Your task to perform on an android device: toggle location history Image 0: 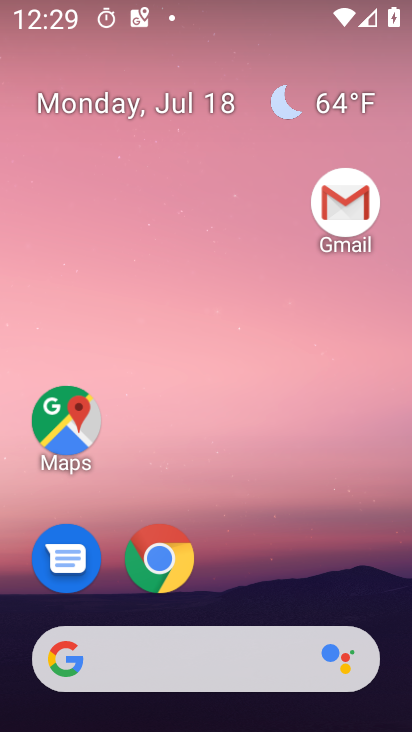
Step 0: drag from (341, 590) to (276, 0)
Your task to perform on an android device: toggle location history Image 1: 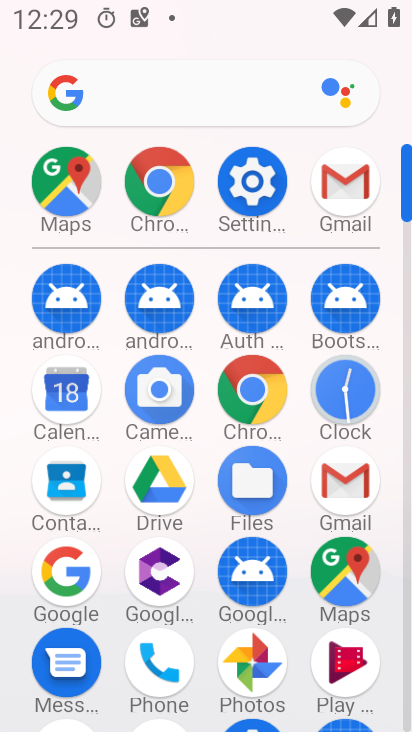
Step 1: click (246, 192)
Your task to perform on an android device: toggle location history Image 2: 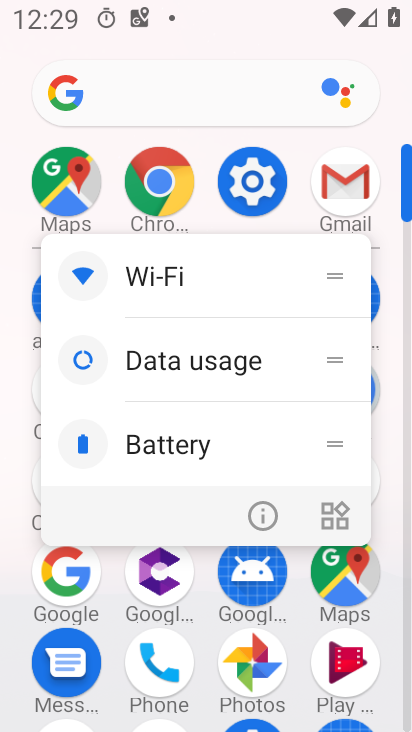
Step 2: click (258, 183)
Your task to perform on an android device: toggle location history Image 3: 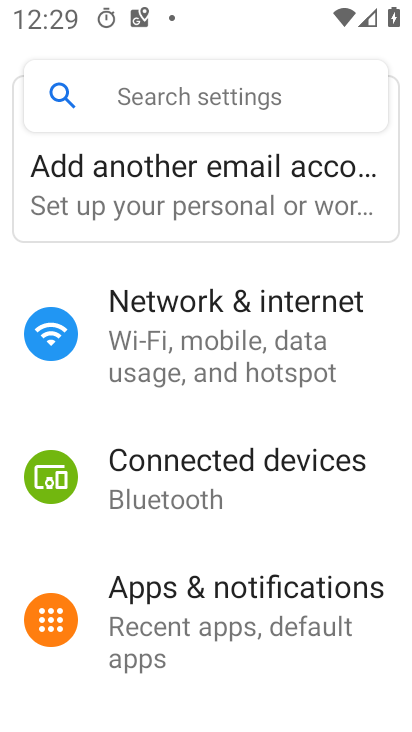
Step 3: drag from (362, 521) to (363, 426)
Your task to perform on an android device: toggle location history Image 4: 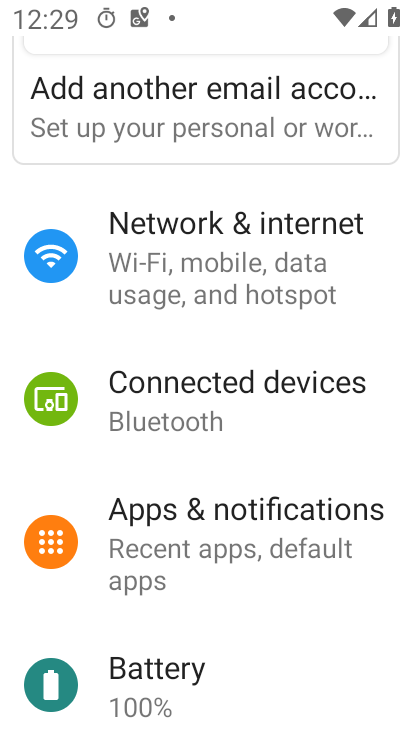
Step 4: drag from (357, 575) to (362, 472)
Your task to perform on an android device: toggle location history Image 5: 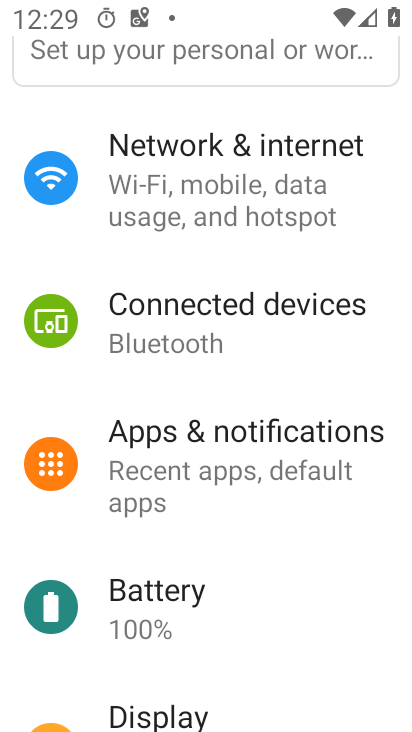
Step 5: drag from (352, 539) to (364, 434)
Your task to perform on an android device: toggle location history Image 6: 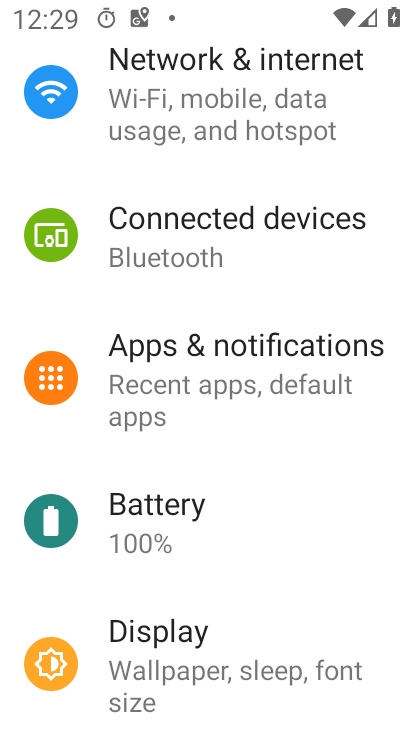
Step 6: drag from (354, 538) to (354, 406)
Your task to perform on an android device: toggle location history Image 7: 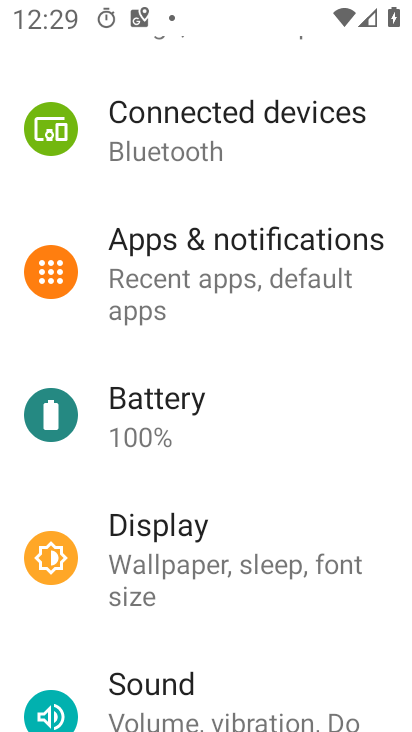
Step 7: drag from (342, 621) to (359, 494)
Your task to perform on an android device: toggle location history Image 8: 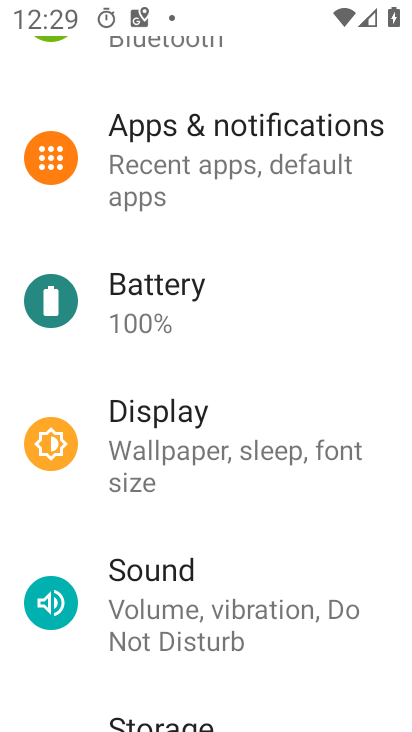
Step 8: drag from (358, 609) to (358, 487)
Your task to perform on an android device: toggle location history Image 9: 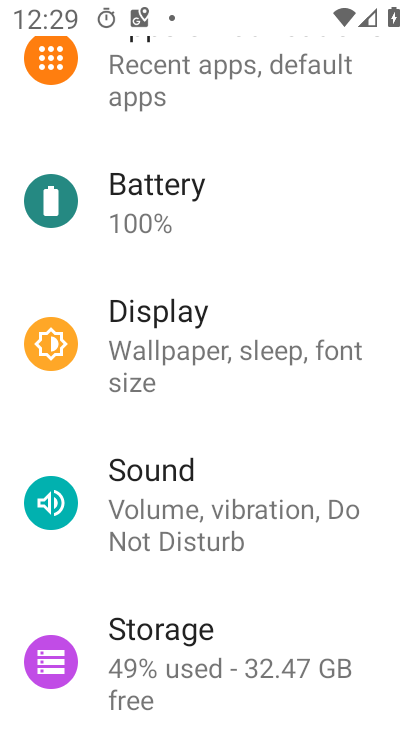
Step 9: drag from (355, 600) to (365, 466)
Your task to perform on an android device: toggle location history Image 10: 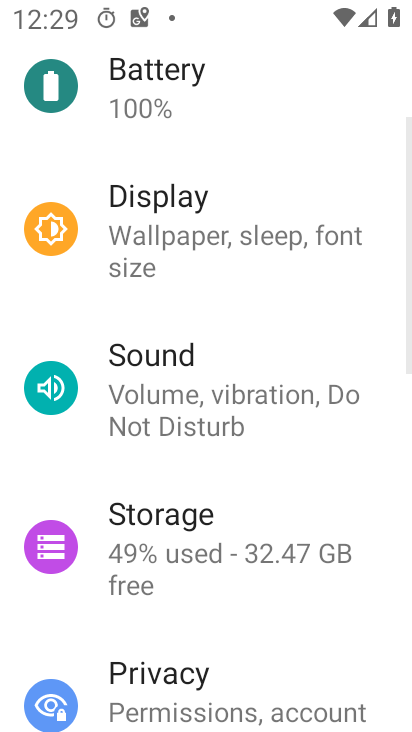
Step 10: drag from (361, 575) to (361, 458)
Your task to perform on an android device: toggle location history Image 11: 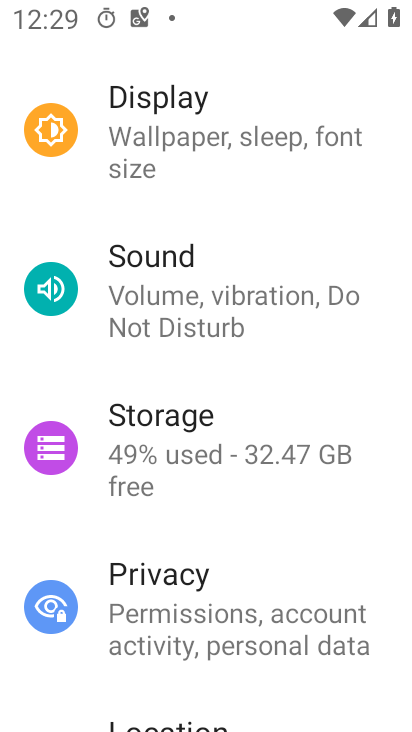
Step 11: drag from (337, 657) to (351, 460)
Your task to perform on an android device: toggle location history Image 12: 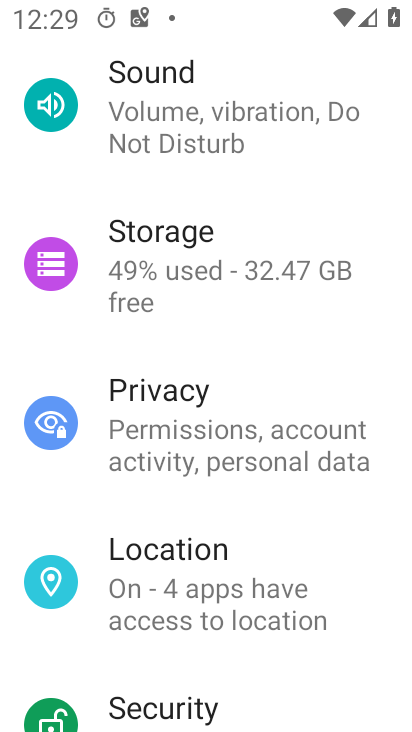
Step 12: click (329, 600)
Your task to perform on an android device: toggle location history Image 13: 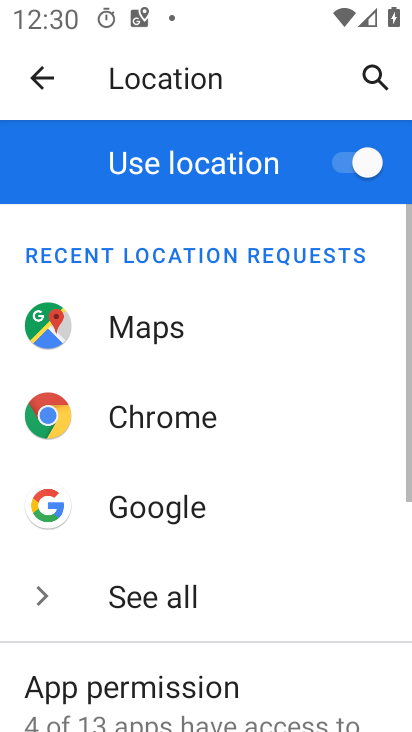
Step 13: drag from (326, 587) to (335, 487)
Your task to perform on an android device: toggle location history Image 14: 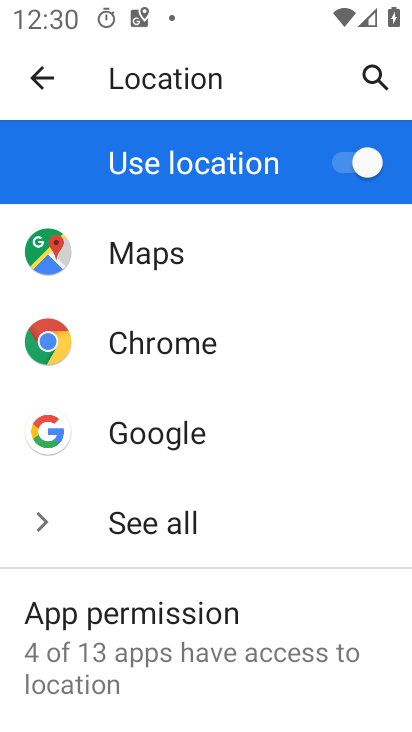
Step 14: drag from (327, 690) to (329, 531)
Your task to perform on an android device: toggle location history Image 15: 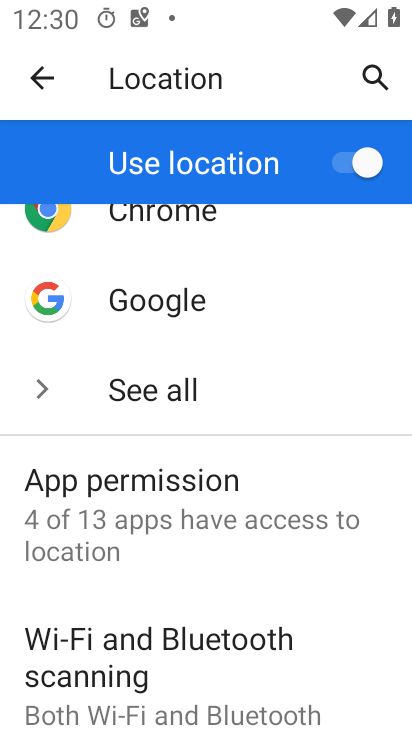
Step 15: drag from (330, 650) to (346, 501)
Your task to perform on an android device: toggle location history Image 16: 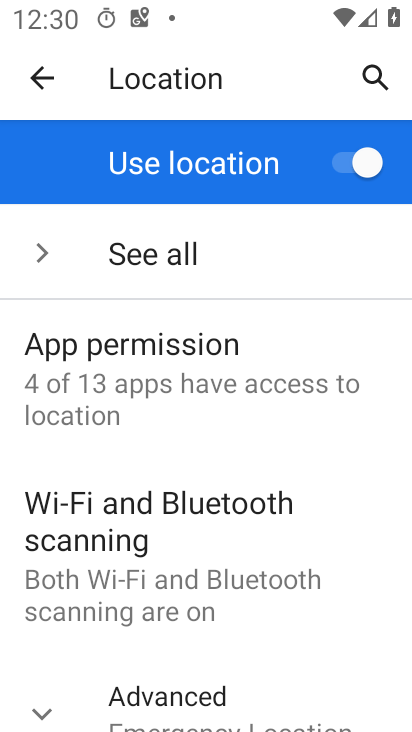
Step 16: drag from (341, 667) to (349, 495)
Your task to perform on an android device: toggle location history Image 17: 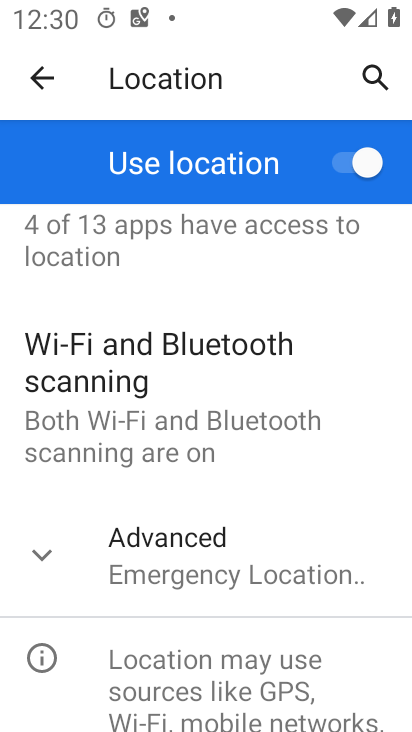
Step 17: click (325, 574)
Your task to perform on an android device: toggle location history Image 18: 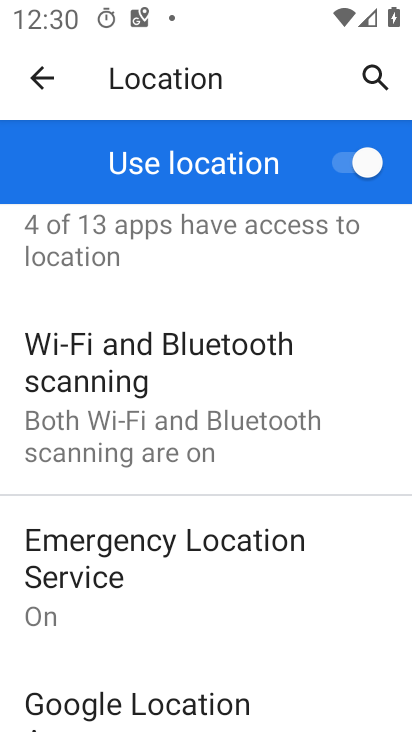
Step 18: drag from (326, 592) to (344, 451)
Your task to perform on an android device: toggle location history Image 19: 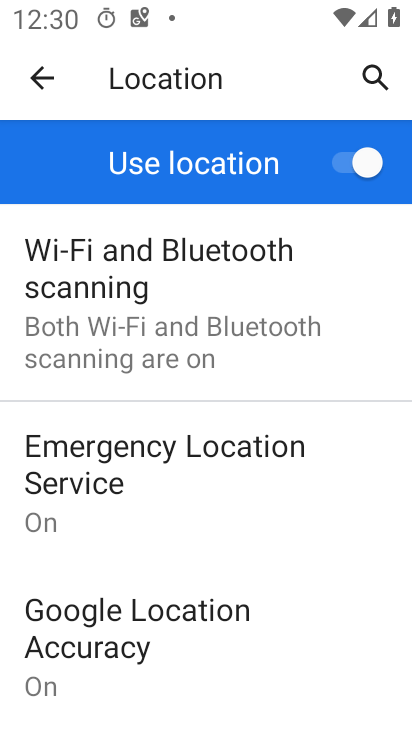
Step 19: drag from (339, 615) to (341, 431)
Your task to perform on an android device: toggle location history Image 20: 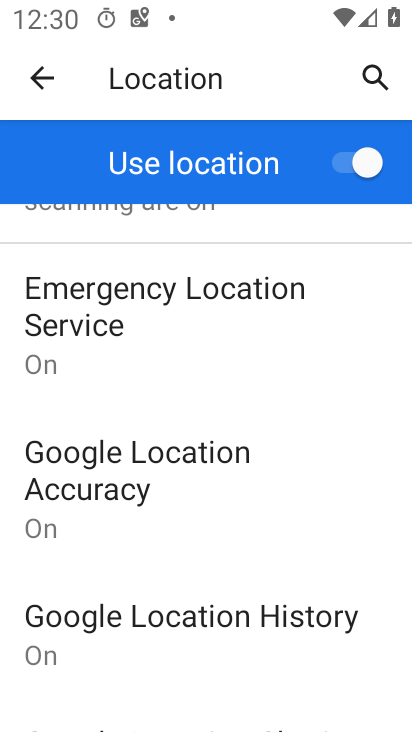
Step 20: click (306, 638)
Your task to perform on an android device: toggle location history Image 21: 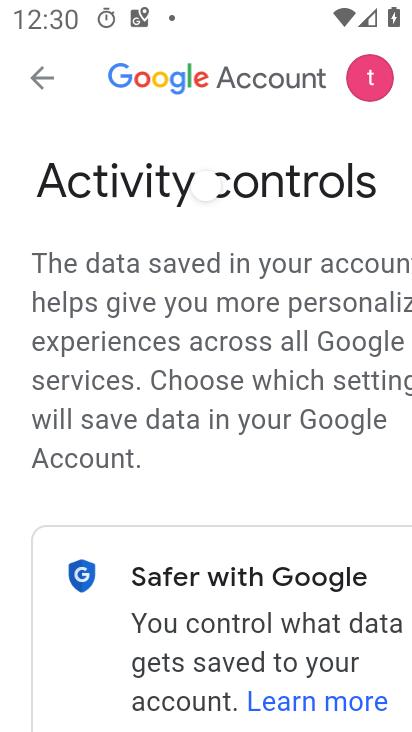
Step 21: drag from (311, 632) to (316, 497)
Your task to perform on an android device: toggle location history Image 22: 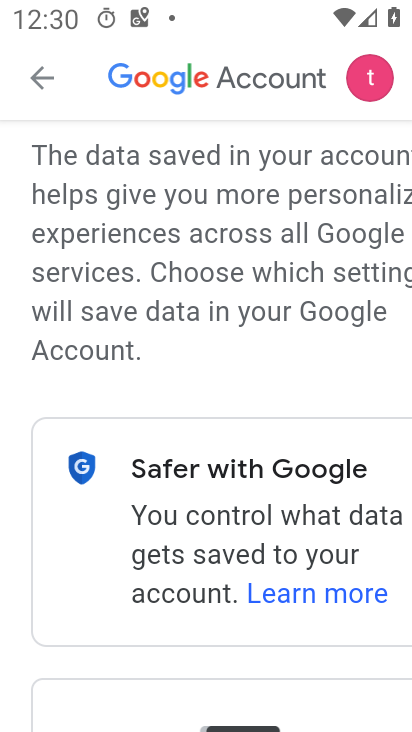
Step 22: drag from (267, 636) to (260, 375)
Your task to perform on an android device: toggle location history Image 23: 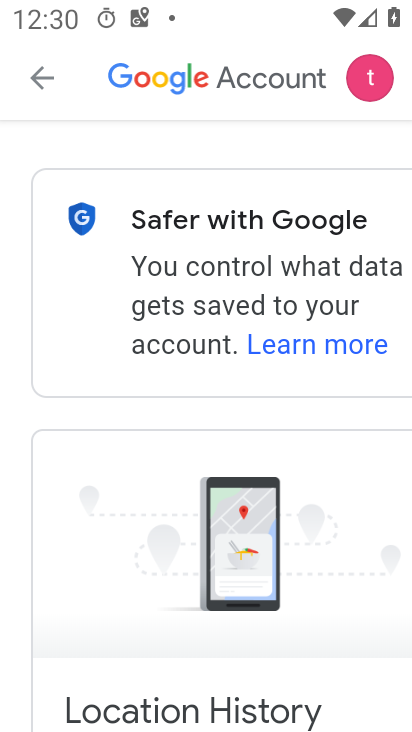
Step 23: drag from (234, 638) to (236, 361)
Your task to perform on an android device: toggle location history Image 24: 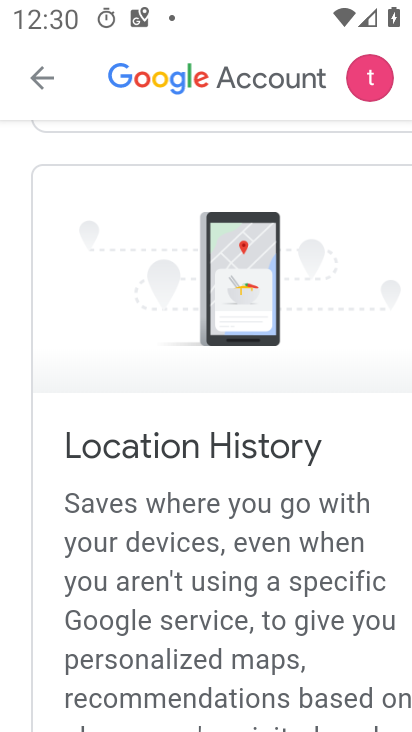
Step 24: drag from (245, 629) to (248, 392)
Your task to perform on an android device: toggle location history Image 25: 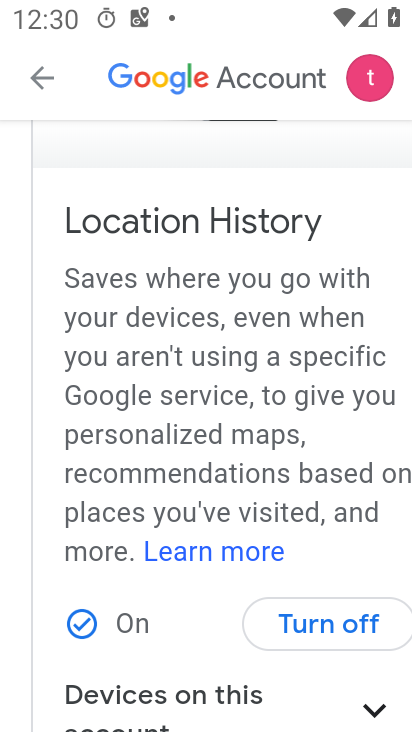
Step 25: click (341, 619)
Your task to perform on an android device: toggle location history Image 26: 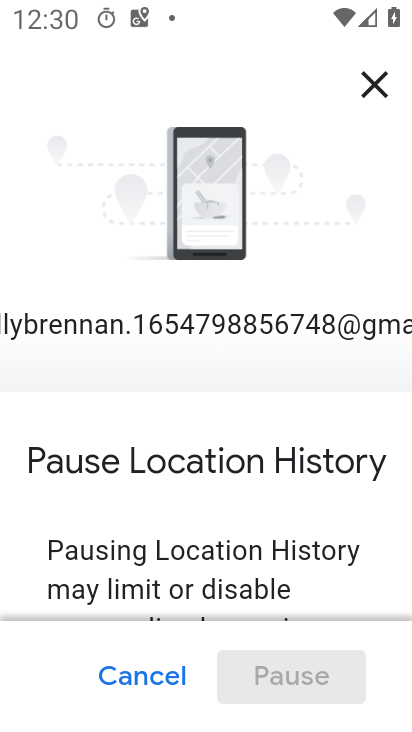
Step 26: drag from (240, 529) to (260, 399)
Your task to perform on an android device: toggle location history Image 27: 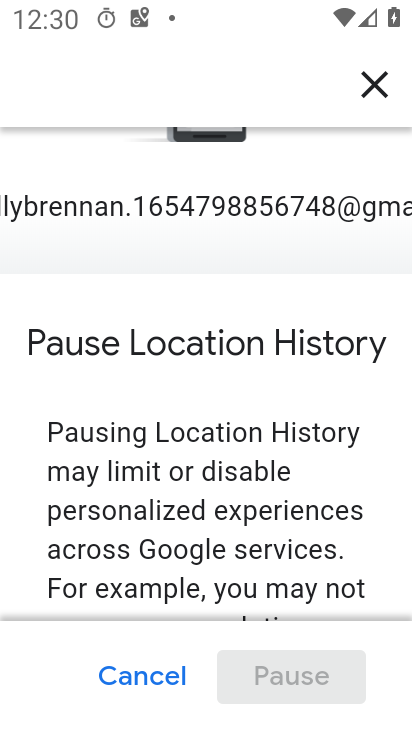
Step 27: drag from (276, 515) to (276, 372)
Your task to perform on an android device: toggle location history Image 28: 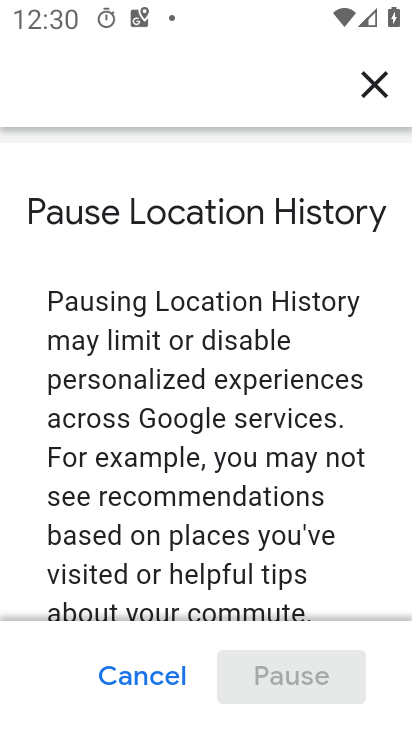
Step 28: drag from (267, 548) to (278, 400)
Your task to perform on an android device: toggle location history Image 29: 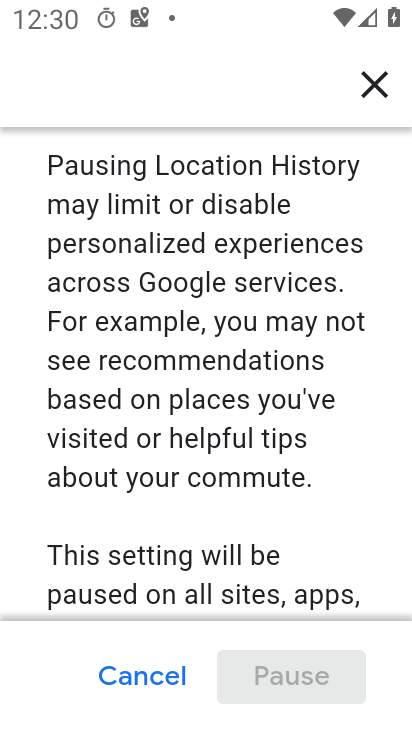
Step 29: drag from (266, 558) to (265, 396)
Your task to perform on an android device: toggle location history Image 30: 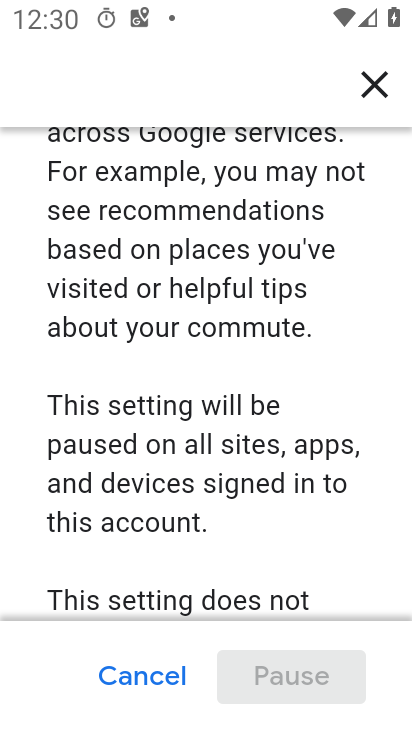
Step 30: drag from (251, 537) to (262, 402)
Your task to perform on an android device: toggle location history Image 31: 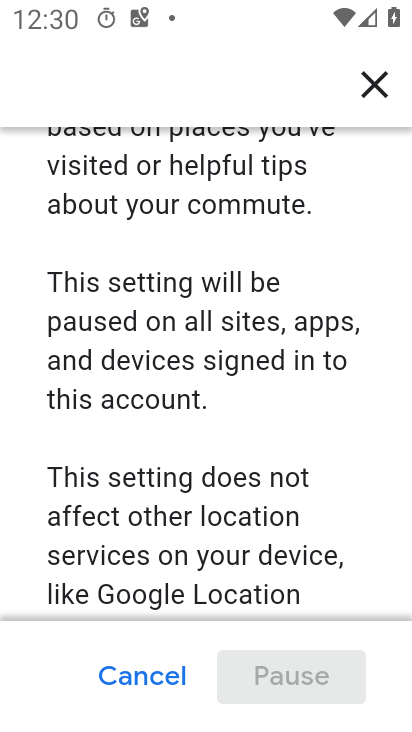
Step 31: drag from (263, 548) to (274, 392)
Your task to perform on an android device: toggle location history Image 32: 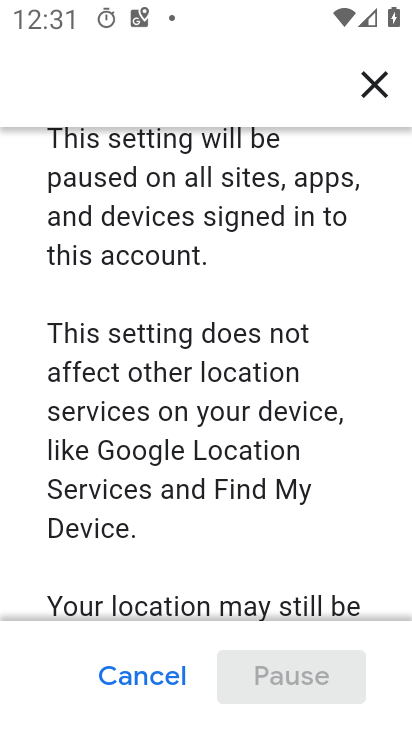
Step 32: drag from (281, 503) to (296, 312)
Your task to perform on an android device: toggle location history Image 33: 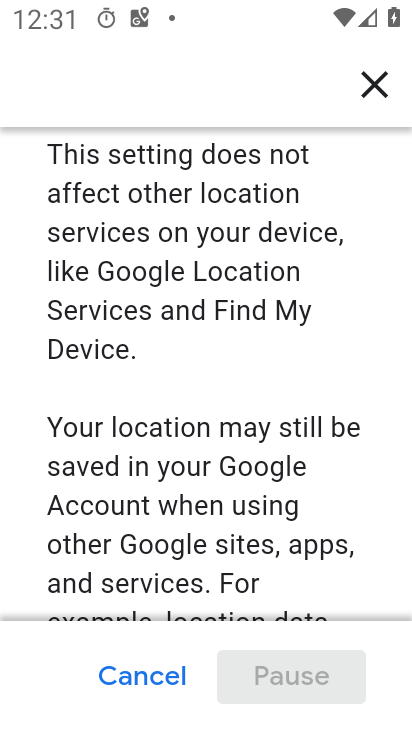
Step 33: drag from (331, 560) to (335, 324)
Your task to perform on an android device: toggle location history Image 34: 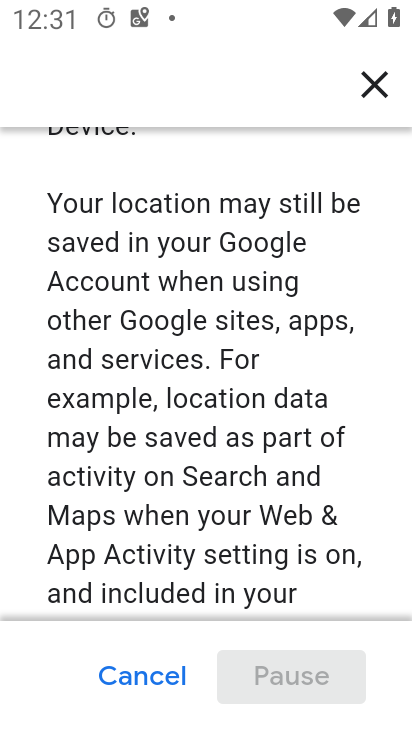
Step 34: drag from (312, 591) to (322, 316)
Your task to perform on an android device: toggle location history Image 35: 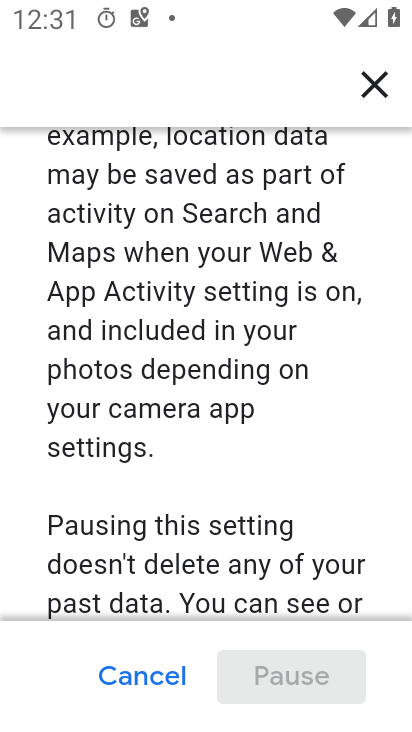
Step 35: drag from (304, 512) to (307, 293)
Your task to perform on an android device: toggle location history Image 36: 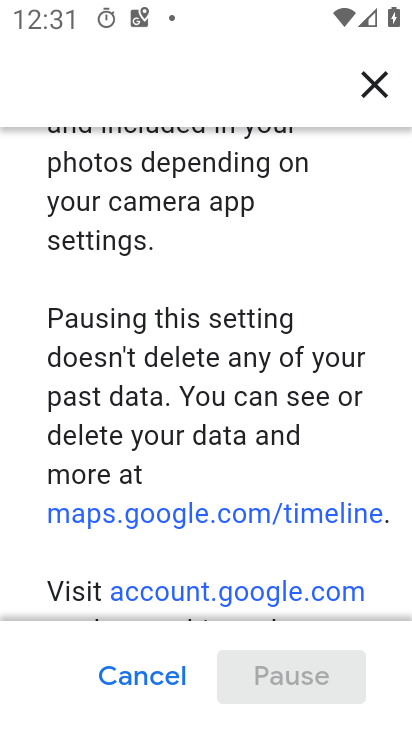
Step 36: drag from (298, 550) to (306, 321)
Your task to perform on an android device: toggle location history Image 37: 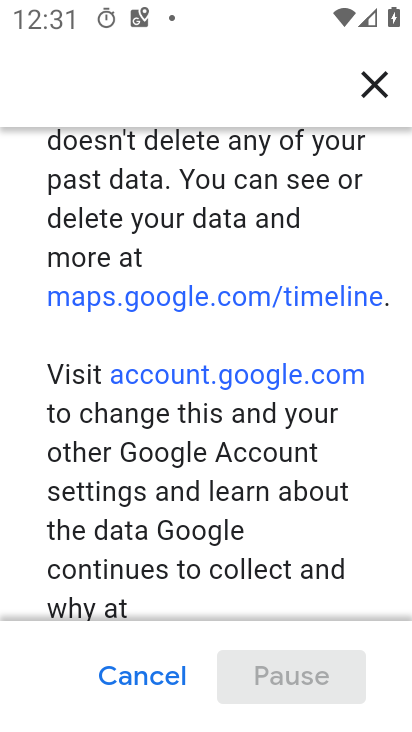
Step 37: drag from (311, 603) to (330, 371)
Your task to perform on an android device: toggle location history Image 38: 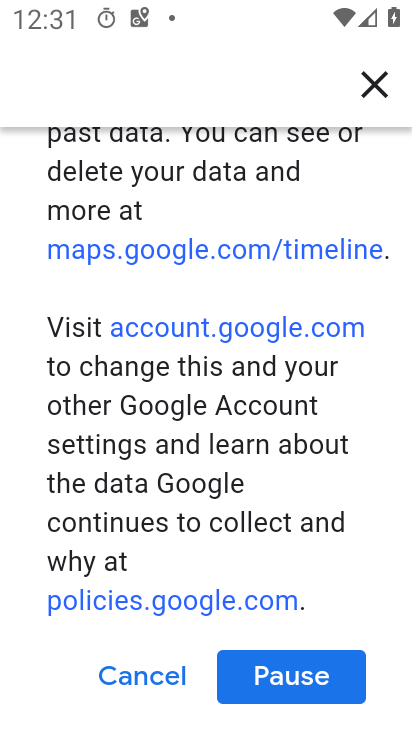
Step 38: click (310, 670)
Your task to perform on an android device: toggle location history Image 39: 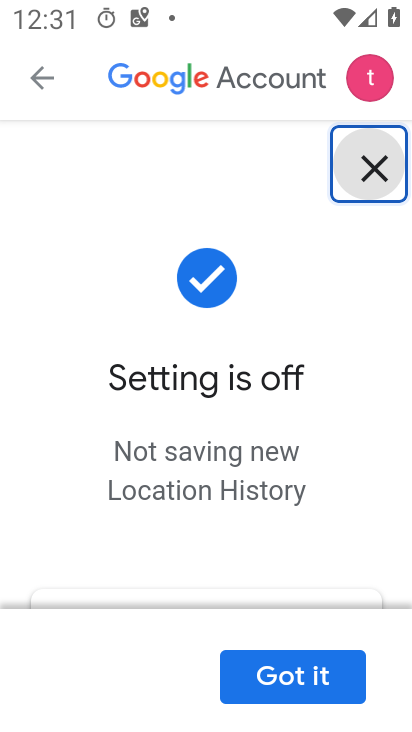
Step 39: task complete